Your task to perform on an android device: Open settings on Google Maps Image 0: 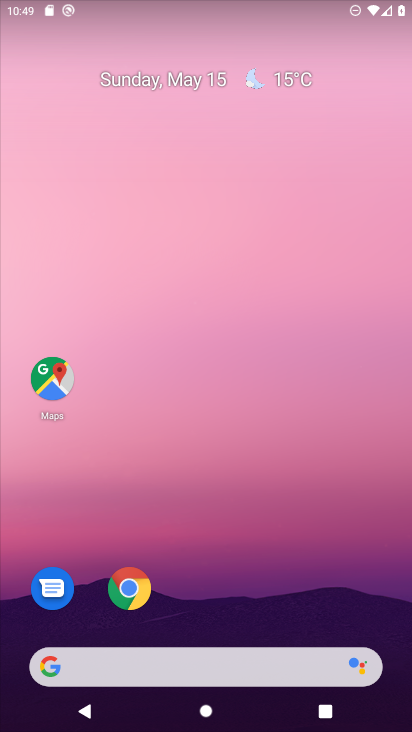
Step 0: drag from (225, 604) to (264, 132)
Your task to perform on an android device: Open settings on Google Maps Image 1: 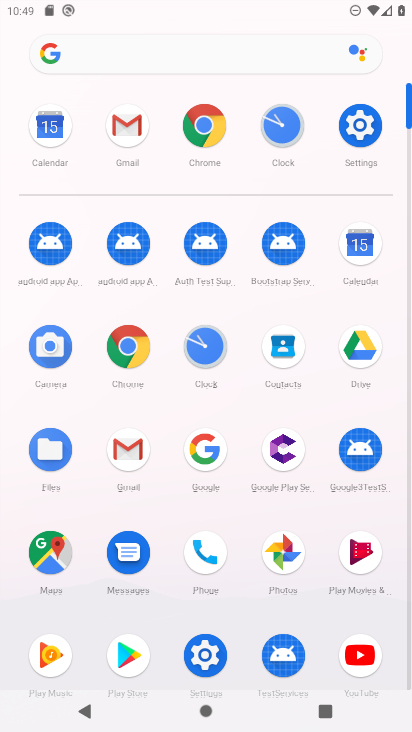
Step 1: click (57, 565)
Your task to perform on an android device: Open settings on Google Maps Image 2: 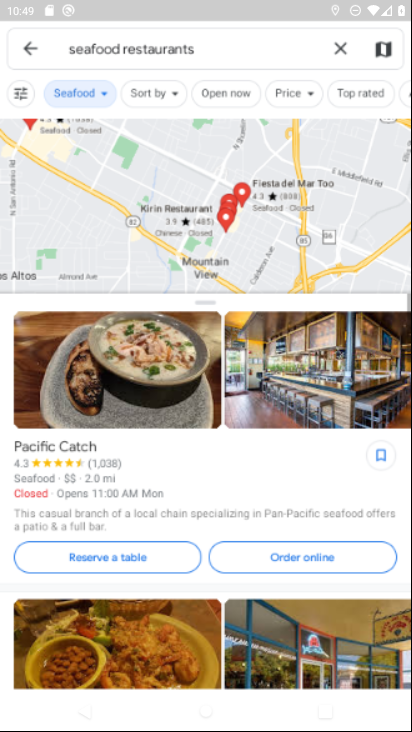
Step 2: click (35, 47)
Your task to perform on an android device: Open settings on Google Maps Image 3: 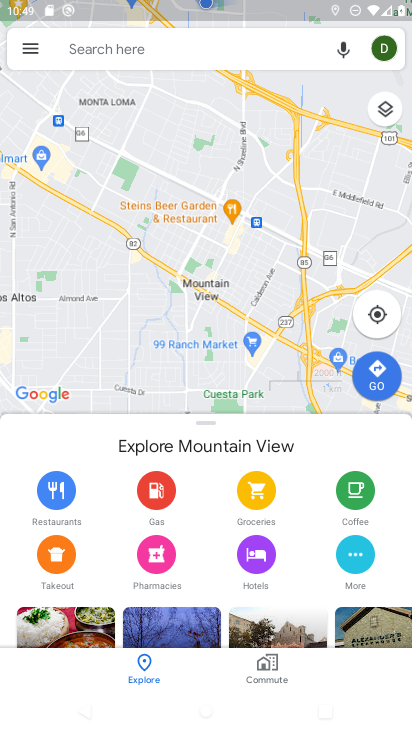
Step 3: click (32, 48)
Your task to perform on an android device: Open settings on Google Maps Image 4: 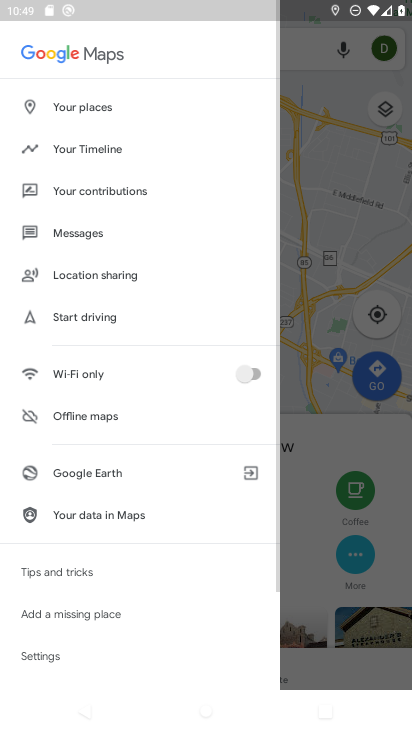
Step 4: drag from (82, 540) to (106, 377)
Your task to perform on an android device: Open settings on Google Maps Image 5: 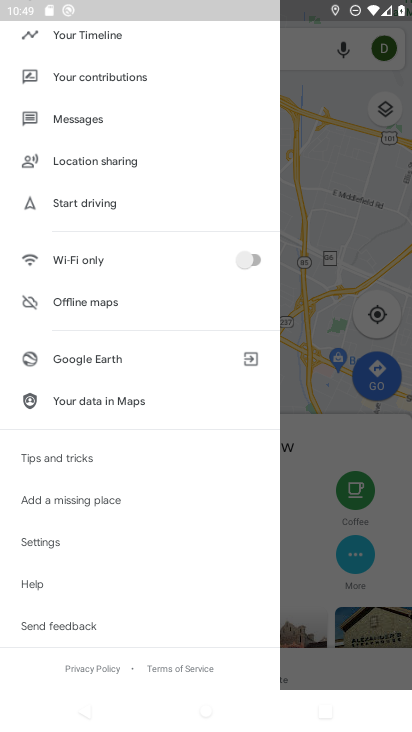
Step 5: click (44, 555)
Your task to perform on an android device: Open settings on Google Maps Image 6: 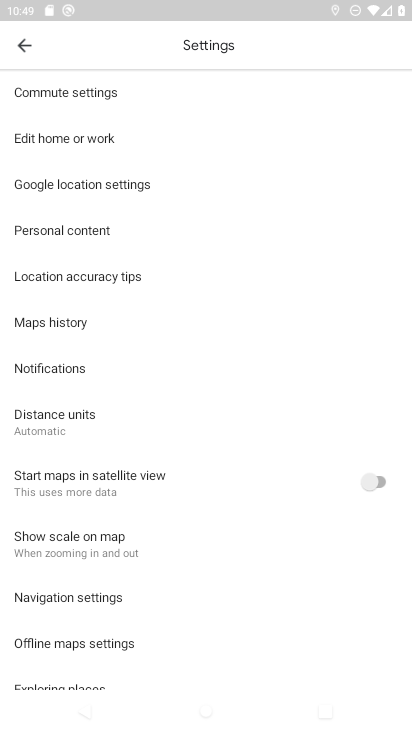
Step 6: task complete